Your task to perform on an android device: turn on wifi Image 0: 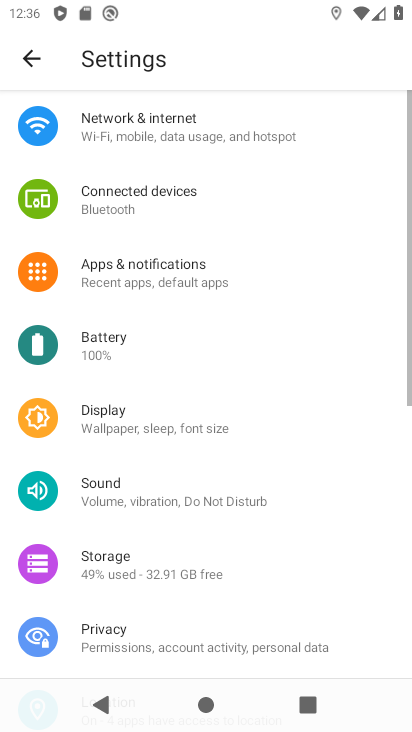
Step 0: click (105, 129)
Your task to perform on an android device: turn on wifi Image 1: 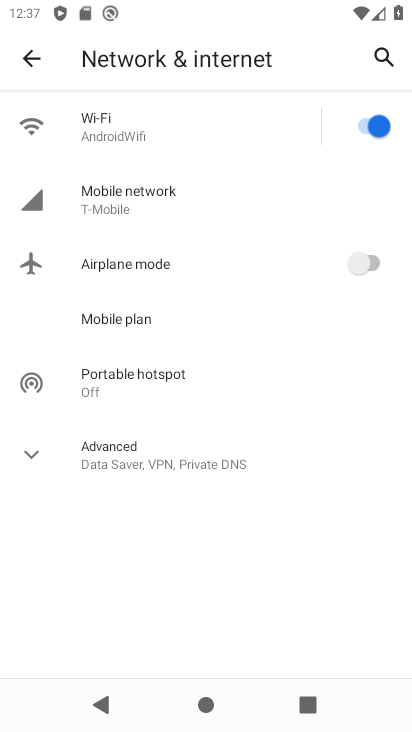
Step 1: task complete